Your task to perform on an android device: toggle show notifications on the lock screen Image 0: 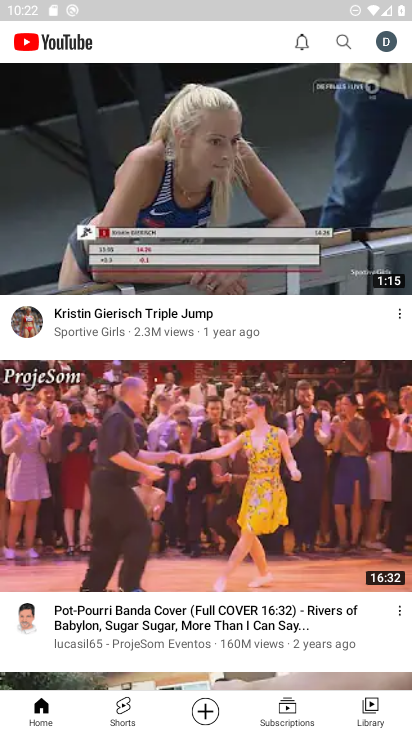
Step 0: press home button
Your task to perform on an android device: toggle show notifications on the lock screen Image 1: 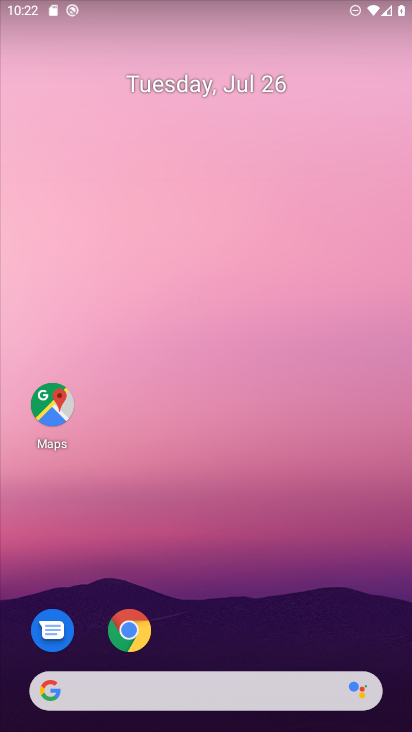
Step 1: drag from (390, 653) to (313, 97)
Your task to perform on an android device: toggle show notifications on the lock screen Image 2: 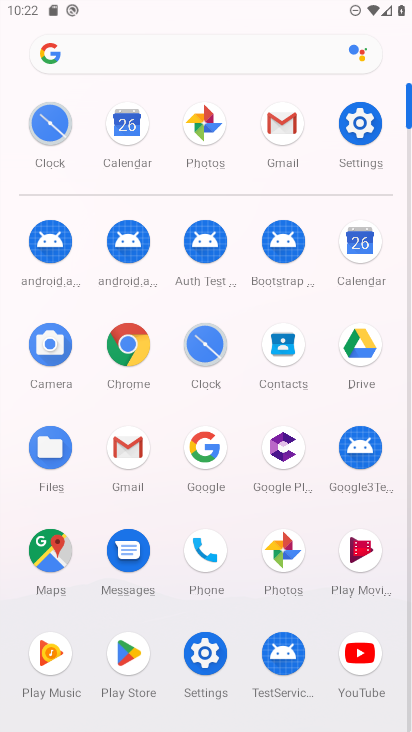
Step 2: click (205, 654)
Your task to perform on an android device: toggle show notifications on the lock screen Image 3: 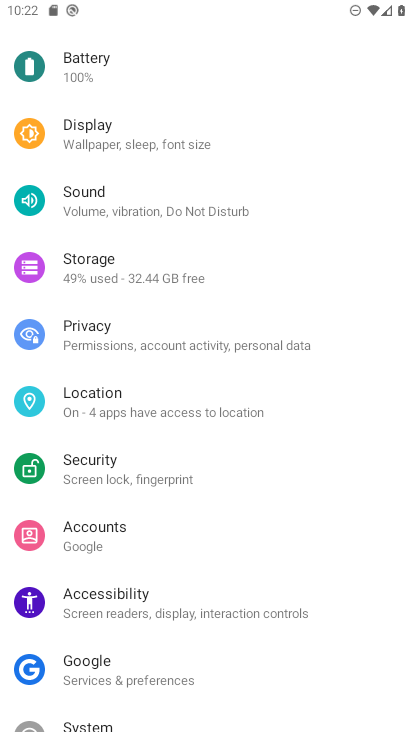
Step 3: drag from (315, 232) to (314, 422)
Your task to perform on an android device: toggle show notifications on the lock screen Image 4: 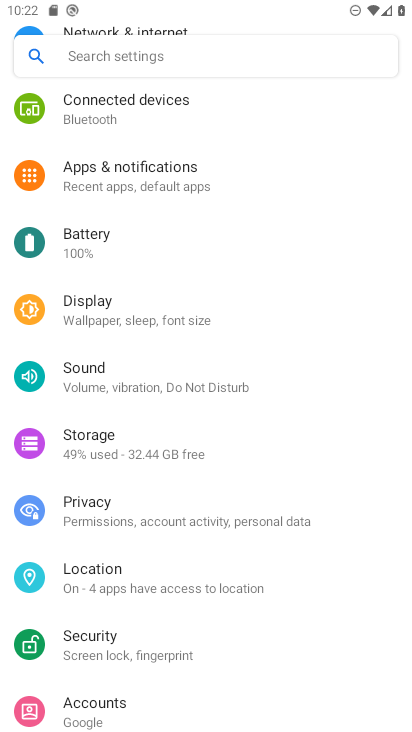
Step 4: click (96, 176)
Your task to perform on an android device: toggle show notifications on the lock screen Image 5: 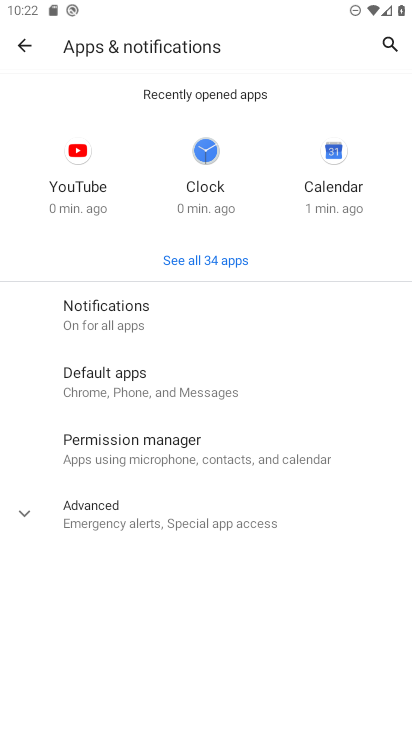
Step 5: click (99, 314)
Your task to perform on an android device: toggle show notifications on the lock screen Image 6: 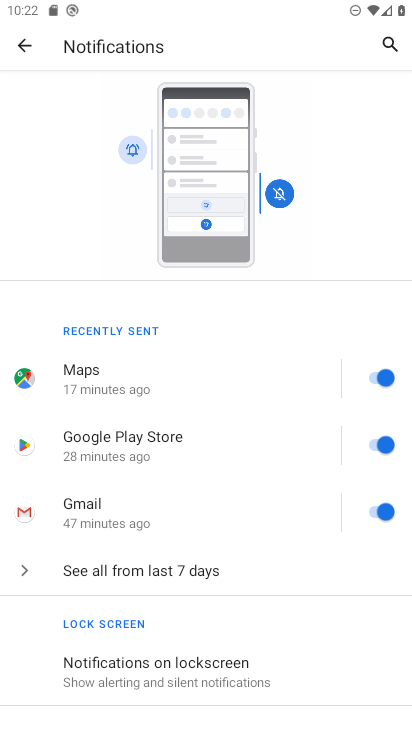
Step 6: drag from (262, 645) to (288, 285)
Your task to perform on an android device: toggle show notifications on the lock screen Image 7: 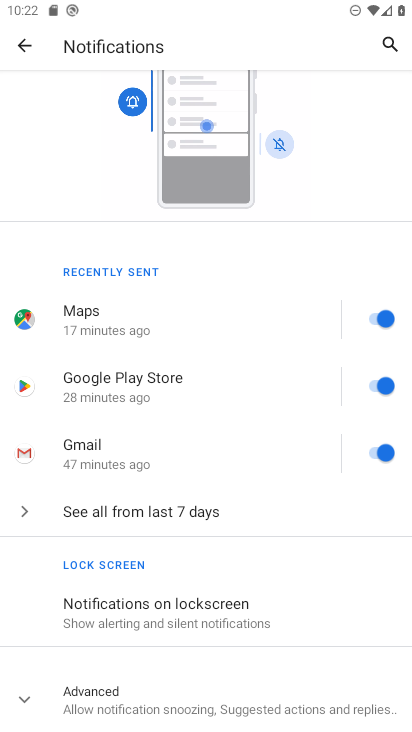
Step 7: click (152, 606)
Your task to perform on an android device: toggle show notifications on the lock screen Image 8: 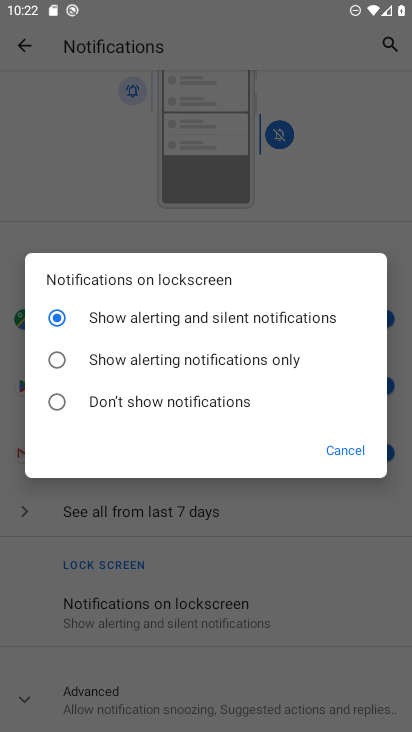
Step 8: click (52, 354)
Your task to perform on an android device: toggle show notifications on the lock screen Image 9: 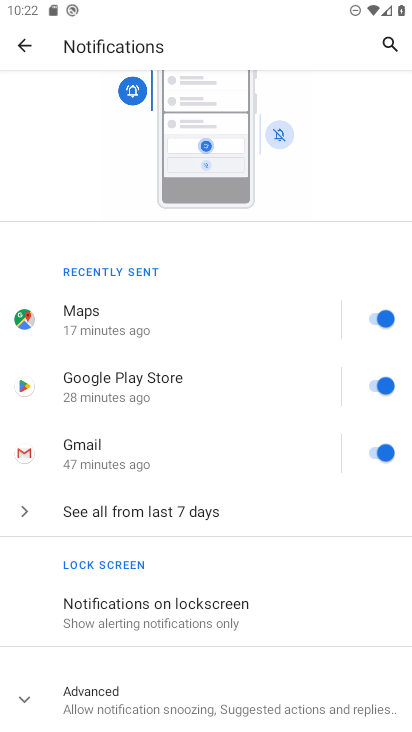
Step 9: task complete